Your task to perform on an android device: turn off location Image 0: 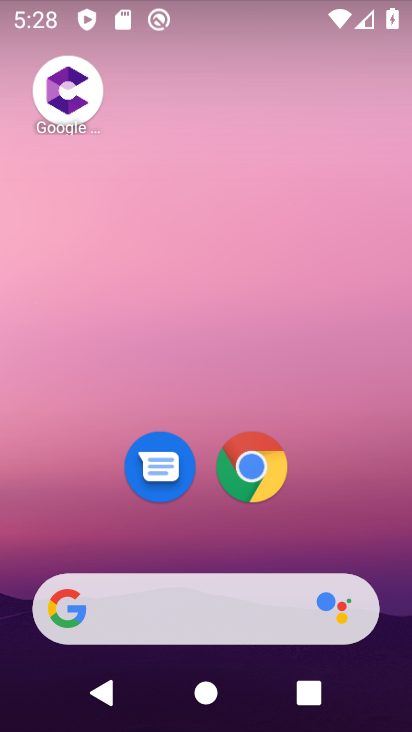
Step 0: drag from (211, 526) to (247, 52)
Your task to perform on an android device: turn off location Image 1: 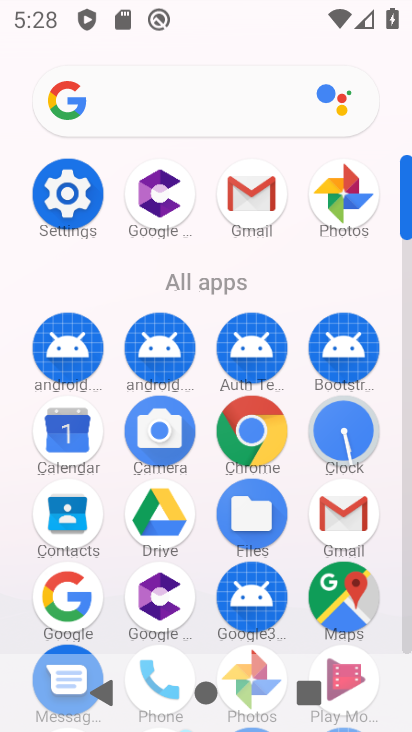
Step 1: click (61, 202)
Your task to perform on an android device: turn off location Image 2: 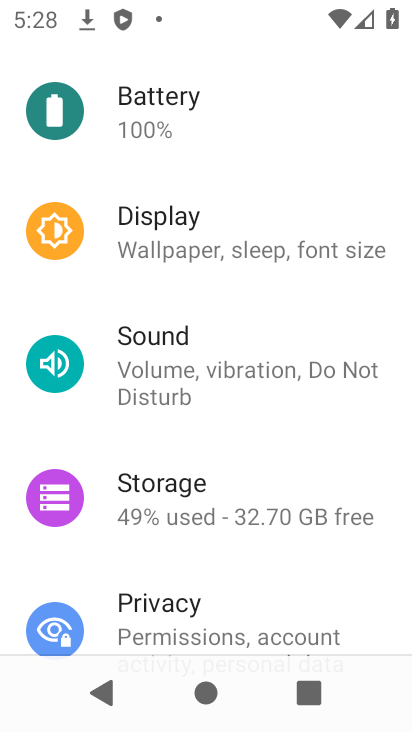
Step 2: drag from (234, 535) to (311, 178)
Your task to perform on an android device: turn off location Image 3: 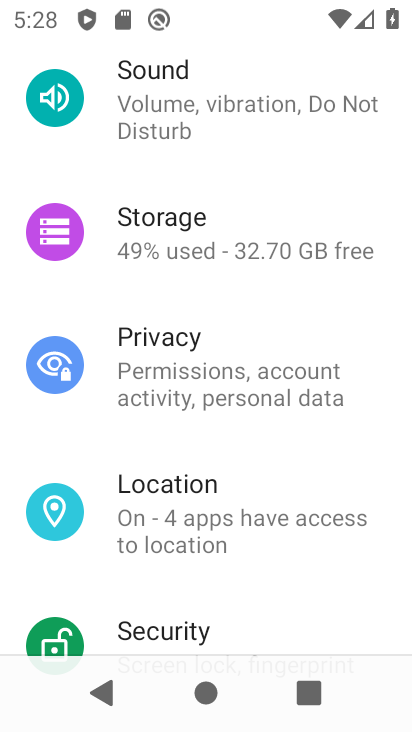
Step 3: click (217, 510)
Your task to perform on an android device: turn off location Image 4: 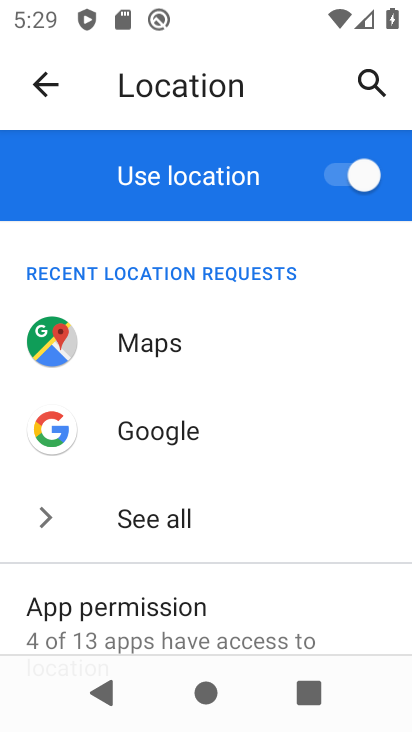
Step 4: click (335, 179)
Your task to perform on an android device: turn off location Image 5: 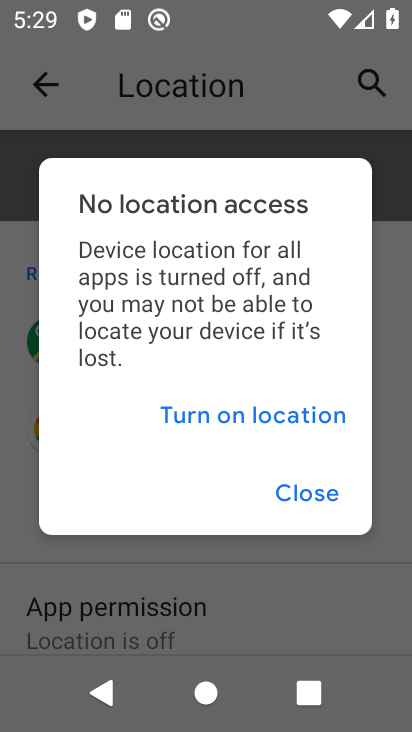
Step 5: task complete